Your task to perform on an android device: Go to calendar. Show me events next week Image 0: 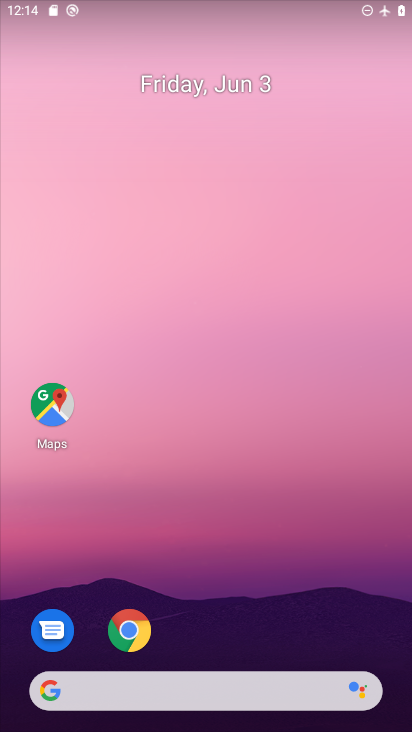
Step 0: drag from (248, 645) to (218, 187)
Your task to perform on an android device: Go to calendar. Show me events next week Image 1: 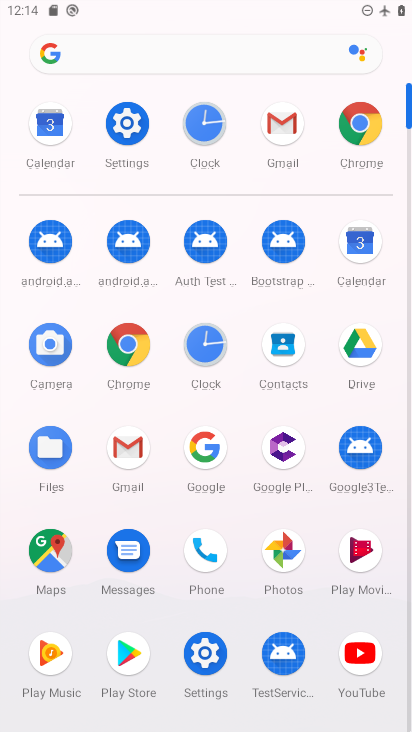
Step 1: click (360, 244)
Your task to perform on an android device: Go to calendar. Show me events next week Image 2: 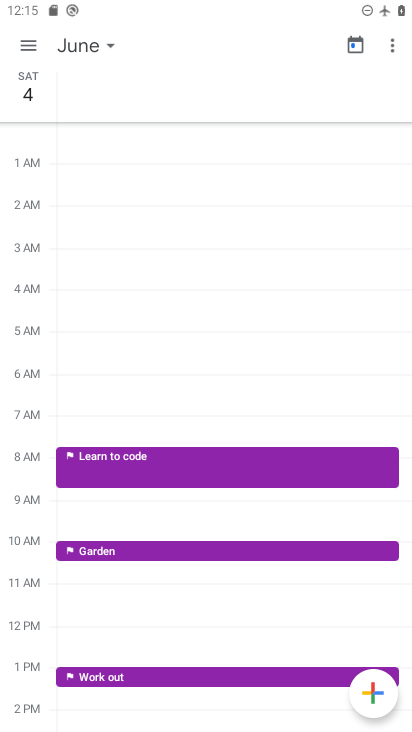
Step 2: click (24, 46)
Your task to perform on an android device: Go to calendar. Show me events next week Image 3: 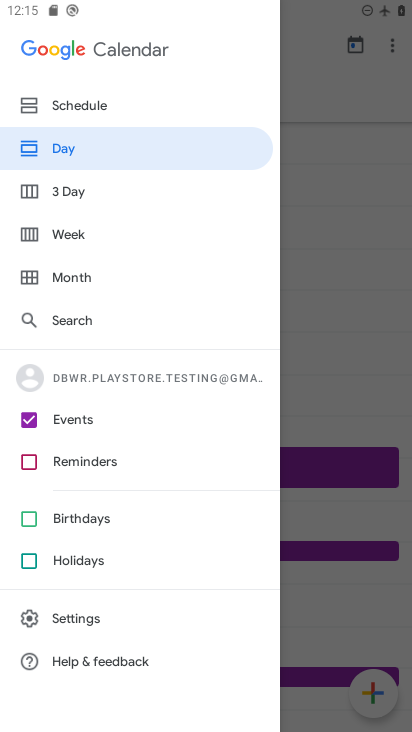
Step 3: click (100, 230)
Your task to perform on an android device: Go to calendar. Show me events next week Image 4: 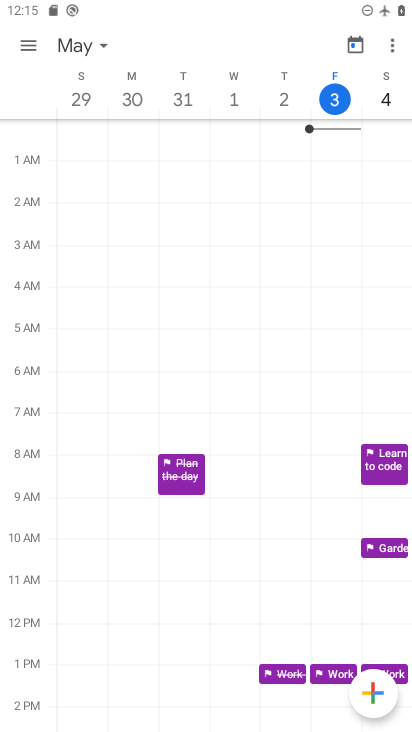
Step 4: task complete